Your task to perform on an android device: Do I have any events this weekend? Image 0: 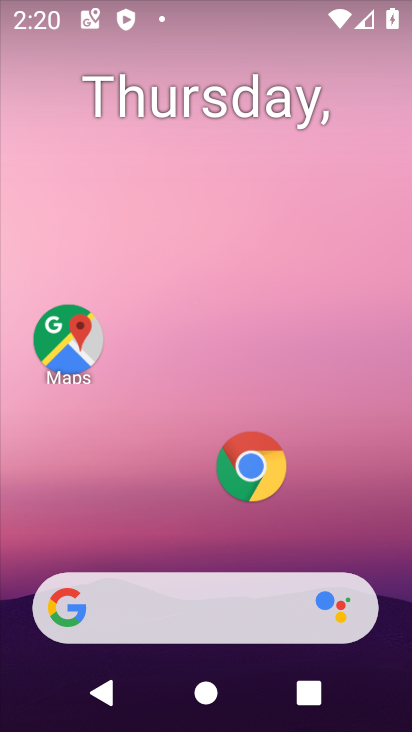
Step 0: drag from (198, 540) to (204, 174)
Your task to perform on an android device: Do I have any events this weekend? Image 1: 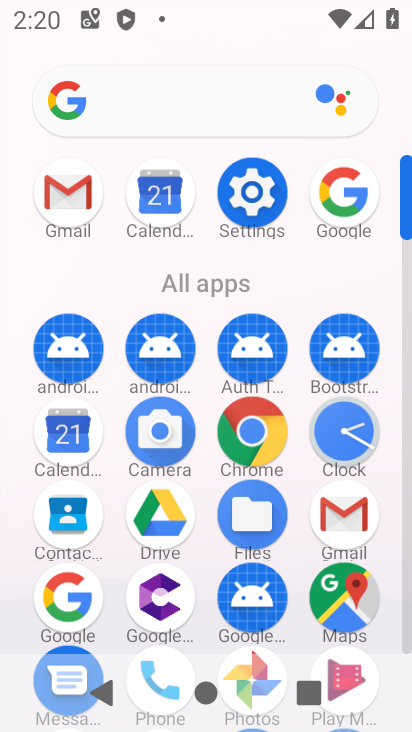
Step 1: click (64, 454)
Your task to perform on an android device: Do I have any events this weekend? Image 2: 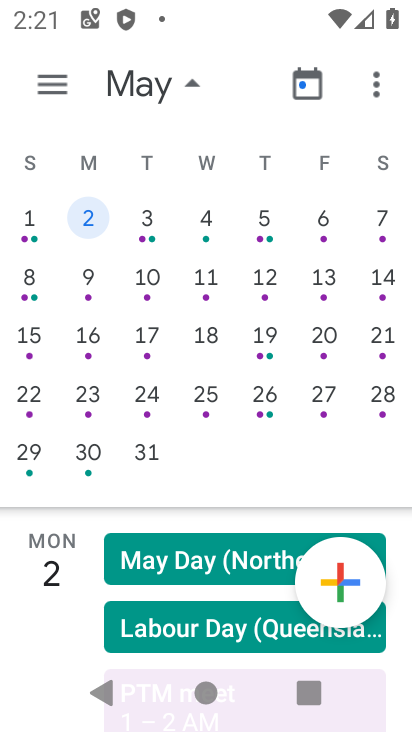
Step 2: drag from (67, 305) to (353, 314)
Your task to perform on an android device: Do I have any events this weekend? Image 3: 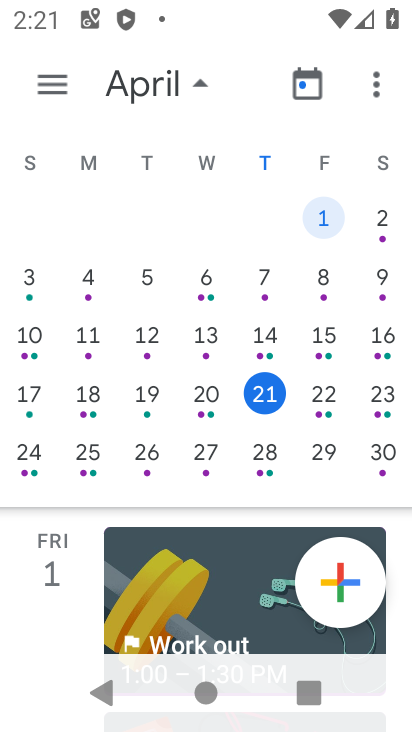
Step 3: click (369, 392)
Your task to perform on an android device: Do I have any events this weekend? Image 4: 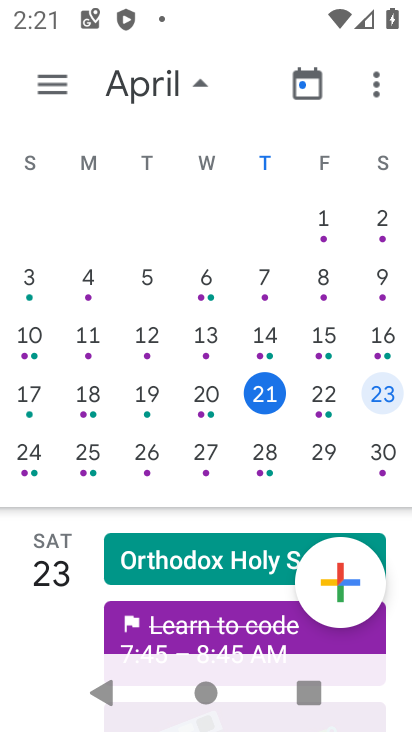
Step 4: drag from (199, 567) to (205, 454)
Your task to perform on an android device: Do I have any events this weekend? Image 5: 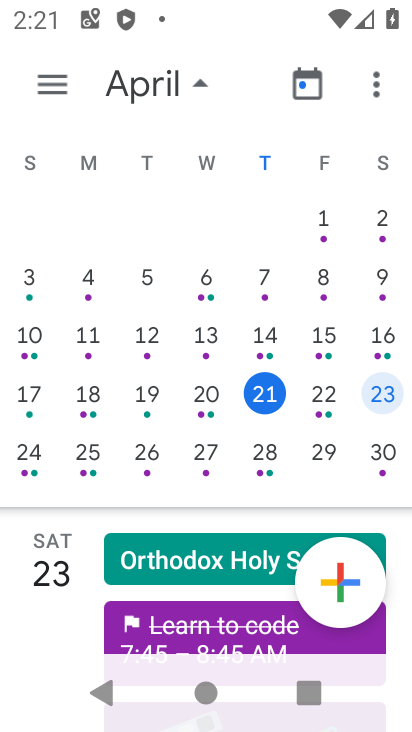
Step 5: click (194, 552)
Your task to perform on an android device: Do I have any events this weekend? Image 6: 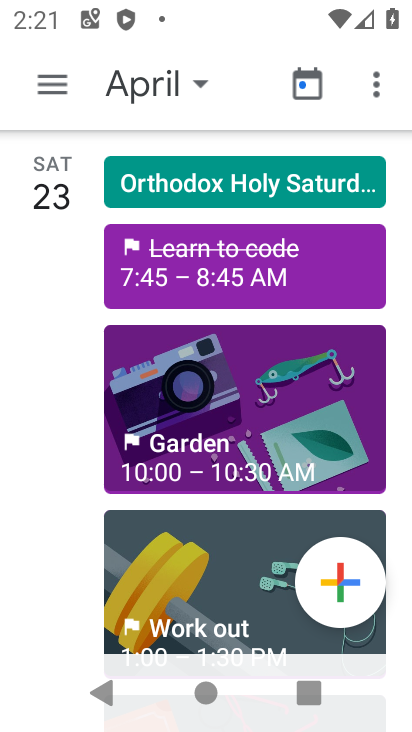
Step 6: click (261, 181)
Your task to perform on an android device: Do I have any events this weekend? Image 7: 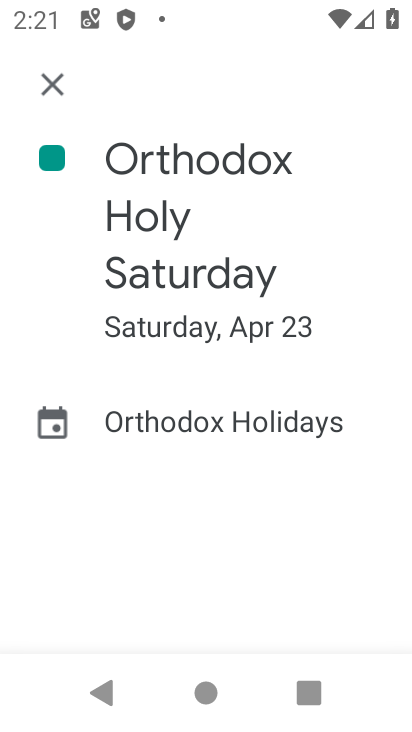
Step 7: task complete